Your task to perform on an android device: Go to Amazon Image 0: 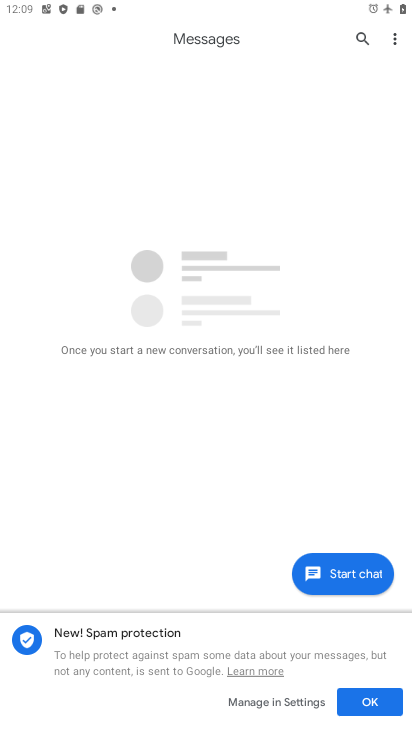
Step 0: press home button
Your task to perform on an android device: Go to Amazon Image 1: 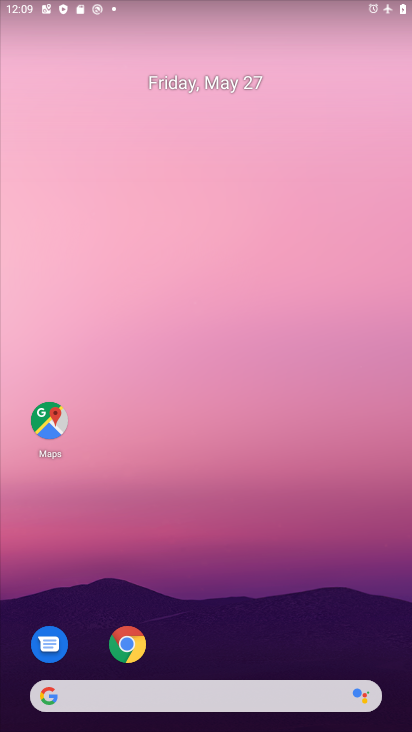
Step 1: click (128, 619)
Your task to perform on an android device: Go to Amazon Image 2: 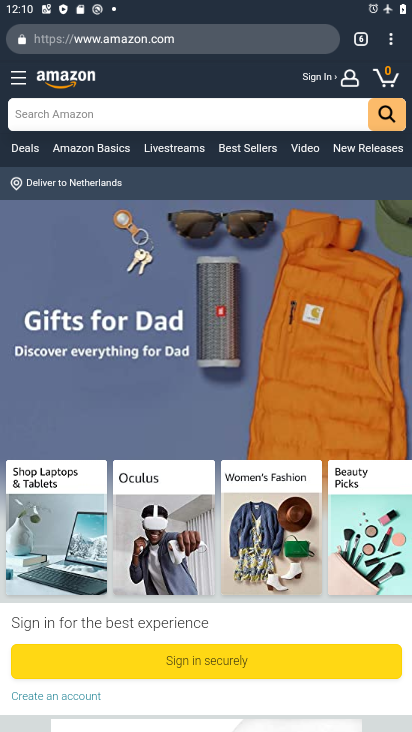
Step 2: task complete